Your task to perform on an android device: Show me popular games on the Play Store Image 0: 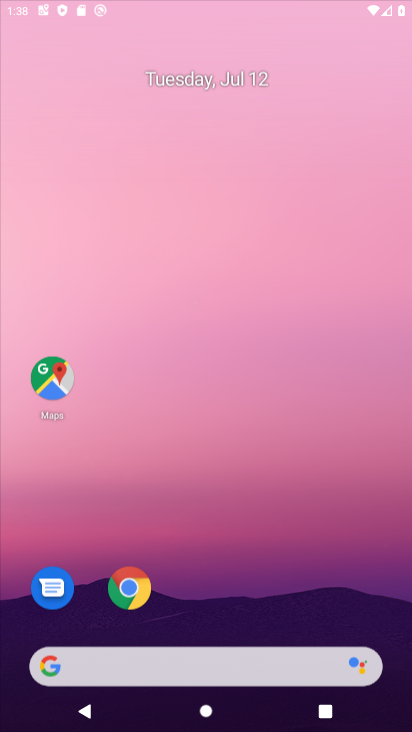
Step 0: click (235, 151)
Your task to perform on an android device: Show me popular games on the Play Store Image 1: 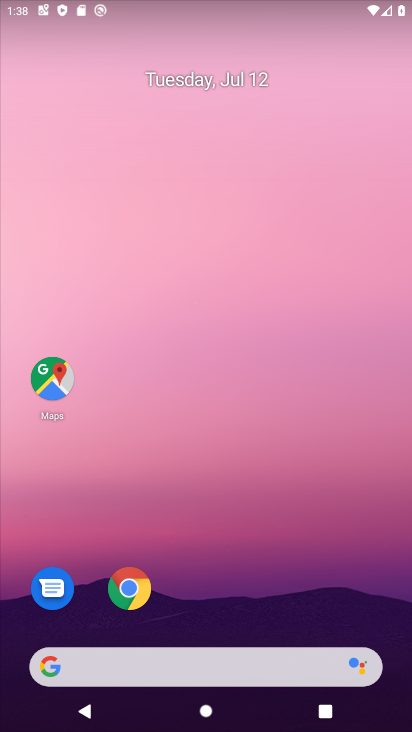
Step 1: drag from (189, 565) to (208, 156)
Your task to perform on an android device: Show me popular games on the Play Store Image 2: 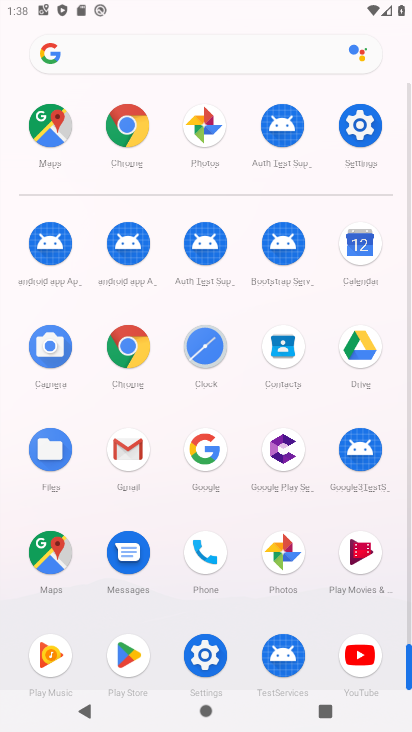
Step 2: click (134, 664)
Your task to perform on an android device: Show me popular games on the Play Store Image 3: 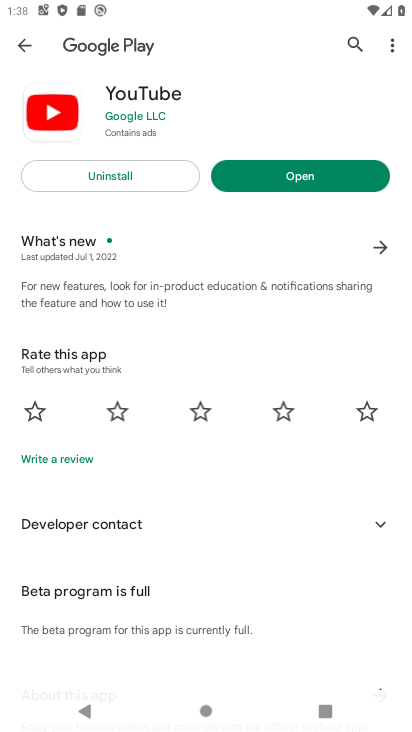
Step 3: click (24, 52)
Your task to perform on an android device: Show me popular games on the Play Store Image 4: 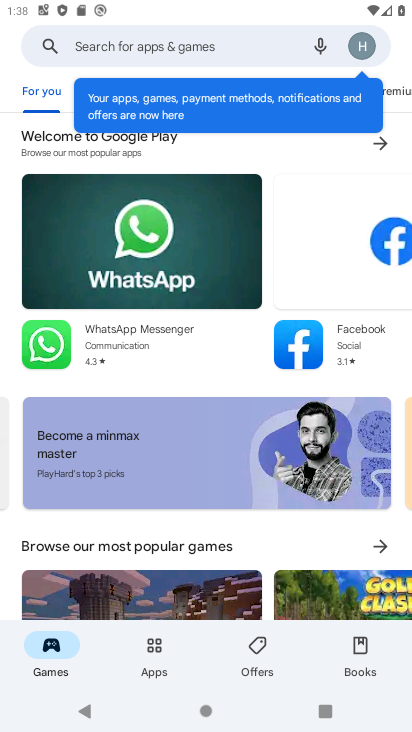
Step 4: click (382, 541)
Your task to perform on an android device: Show me popular games on the Play Store Image 5: 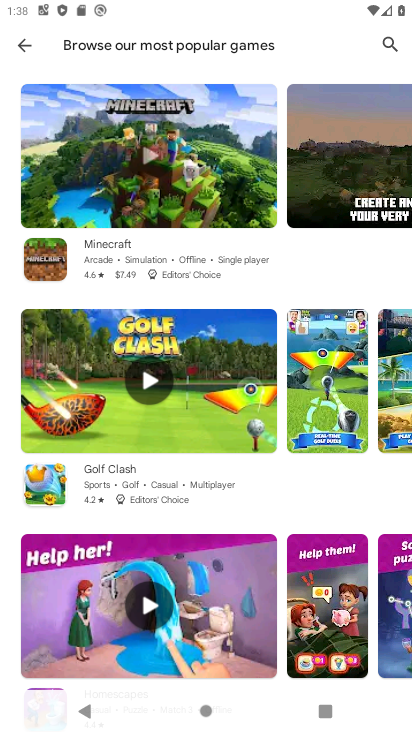
Step 5: task complete